Your task to perform on an android device: stop showing notifications on the lock screen Image 0: 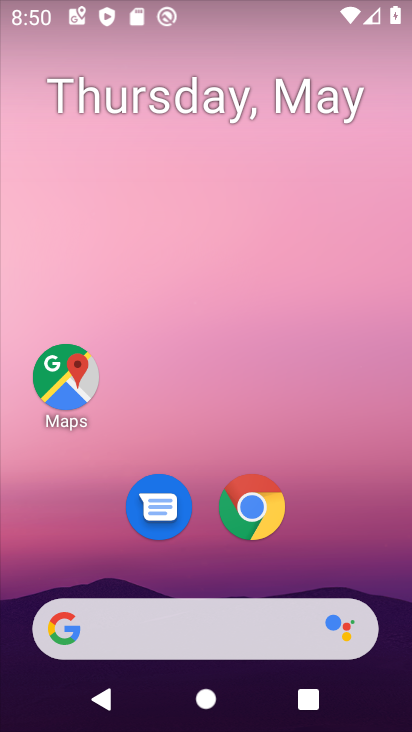
Step 0: drag from (268, 559) to (180, 244)
Your task to perform on an android device: stop showing notifications on the lock screen Image 1: 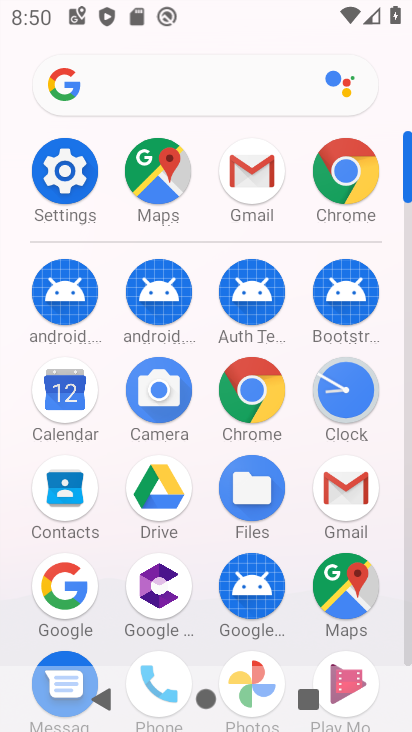
Step 1: click (42, 173)
Your task to perform on an android device: stop showing notifications on the lock screen Image 2: 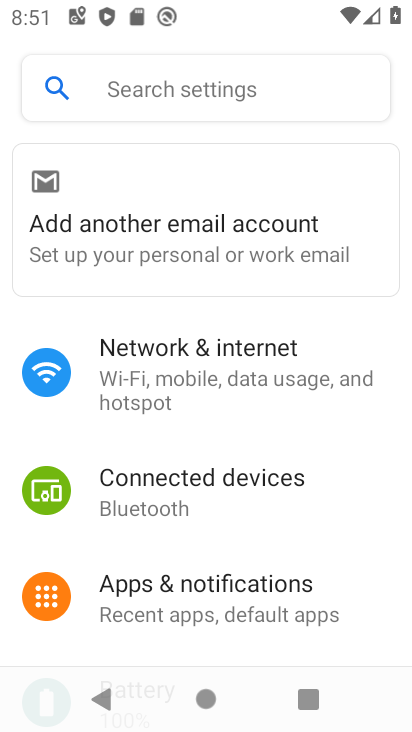
Step 2: click (179, 86)
Your task to perform on an android device: stop showing notifications on the lock screen Image 3: 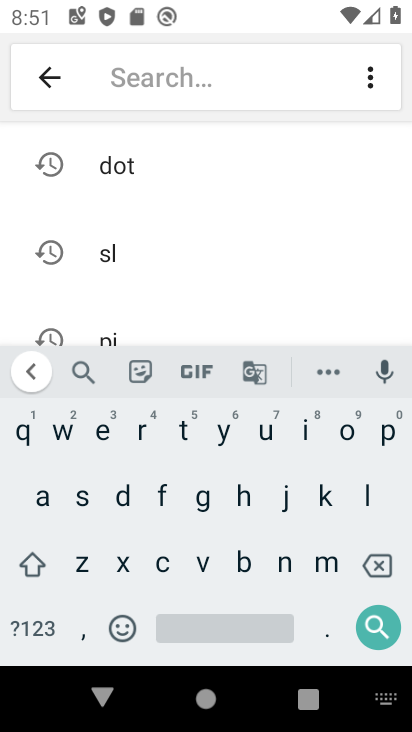
Step 3: click (286, 593)
Your task to perform on an android device: stop showing notifications on the lock screen Image 4: 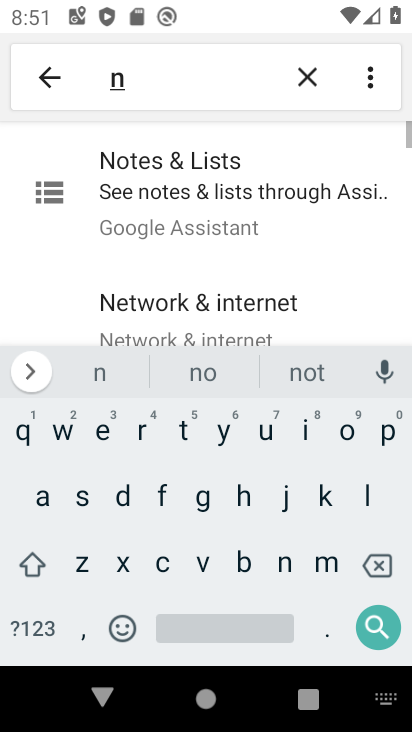
Step 4: click (349, 441)
Your task to perform on an android device: stop showing notifications on the lock screen Image 5: 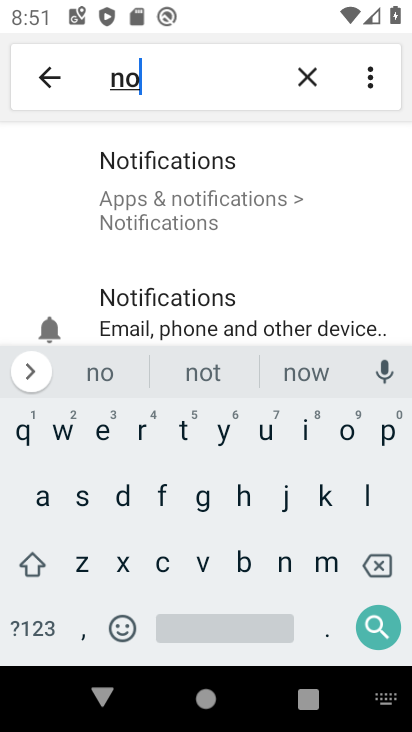
Step 5: click (213, 222)
Your task to perform on an android device: stop showing notifications on the lock screen Image 6: 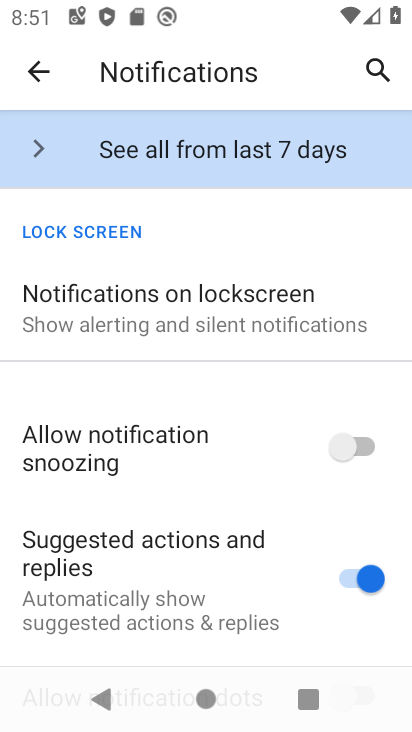
Step 6: click (169, 296)
Your task to perform on an android device: stop showing notifications on the lock screen Image 7: 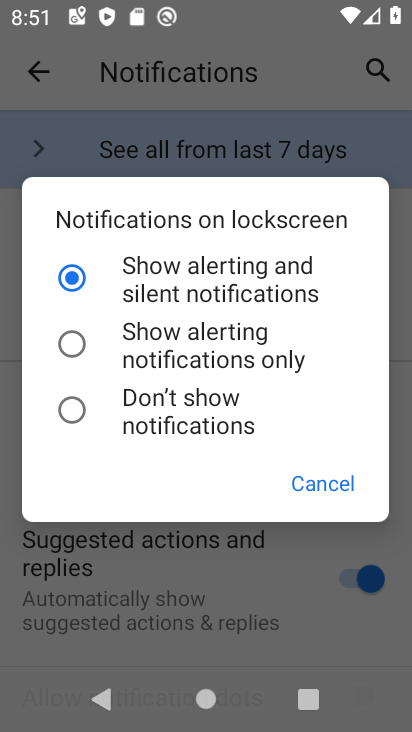
Step 7: click (123, 406)
Your task to perform on an android device: stop showing notifications on the lock screen Image 8: 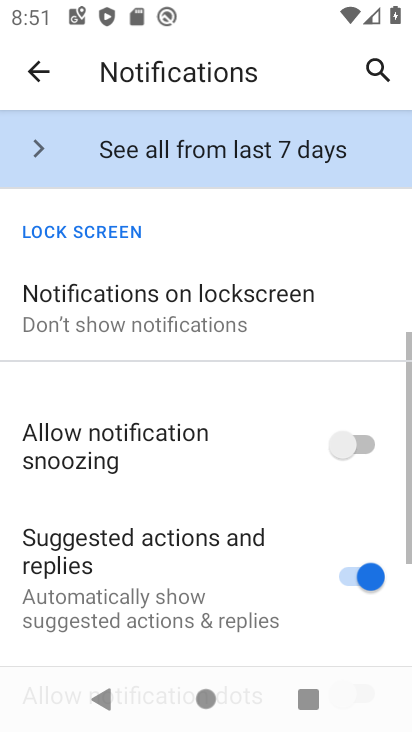
Step 8: task complete